Your task to perform on an android device: search for starred emails in the gmail app Image 0: 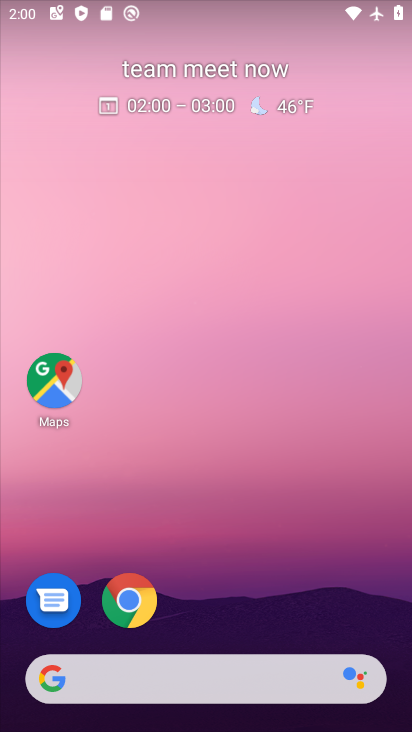
Step 0: drag from (189, 645) to (108, 20)
Your task to perform on an android device: search for starred emails in the gmail app Image 1: 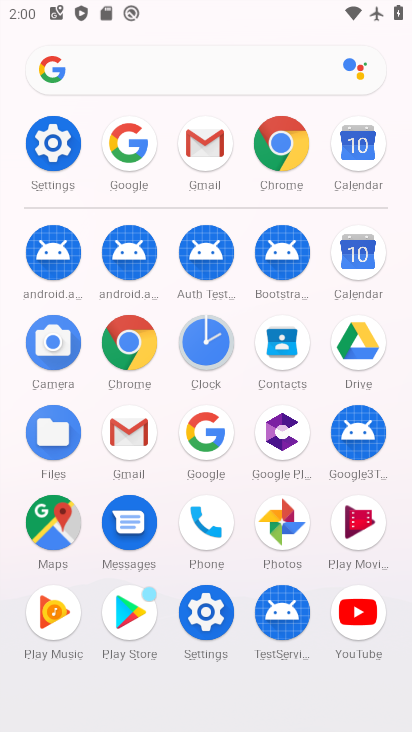
Step 1: click (128, 437)
Your task to perform on an android device: search for starred emails in the gmail app Image 2: 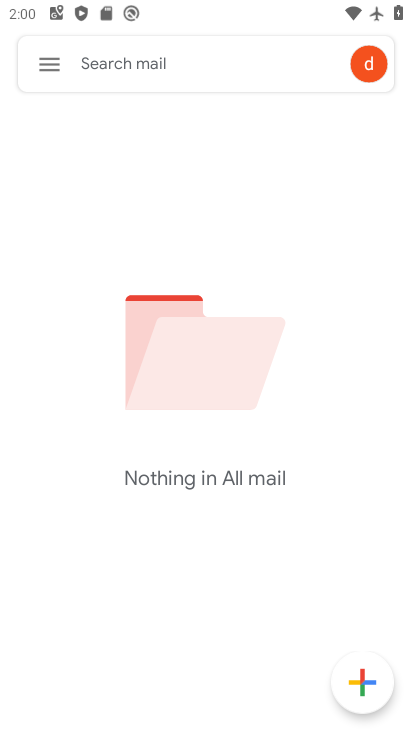
Step 2: click (49, 60)
Your task to perform on an android device: search for starred emails in the gmail app Image 3: 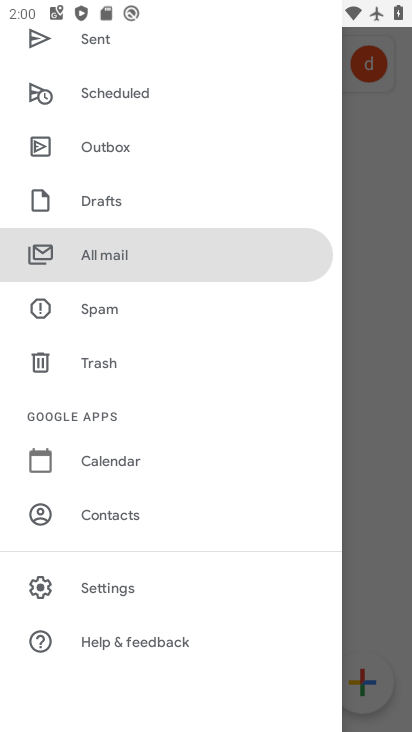
Step 3: drag from (119, 238) to (118, 468)
Your task to perform on an android device: search for starred emails in the gmail app Image 4: 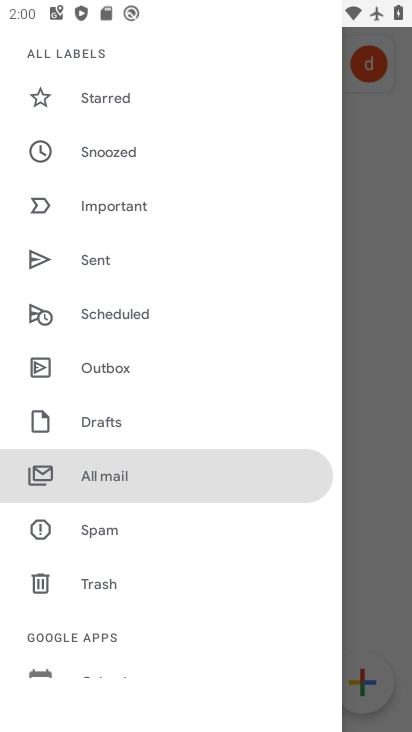
Step 4: click (136, 105)
Your task to perform on an android device: search for starred emails in the gmail app Image 5: 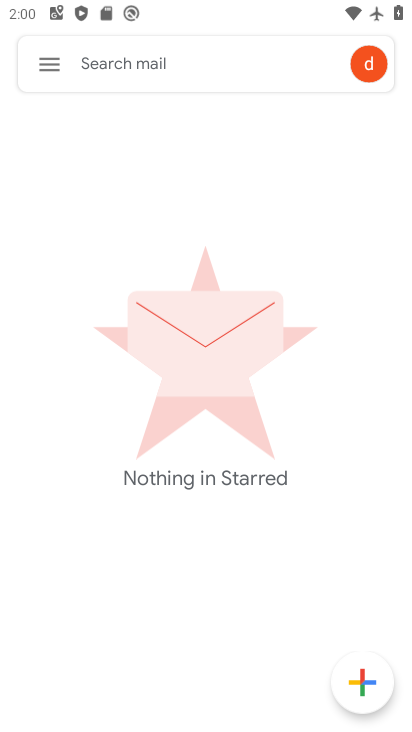
Step 5: task complete